Your task to perform on an android device: Check the news Image 0: 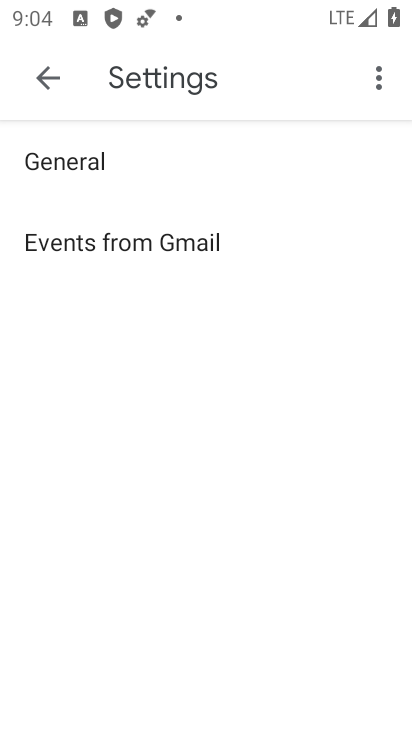
Step 0: press home button
Your task to perform on an android device: Check the news Image 1: 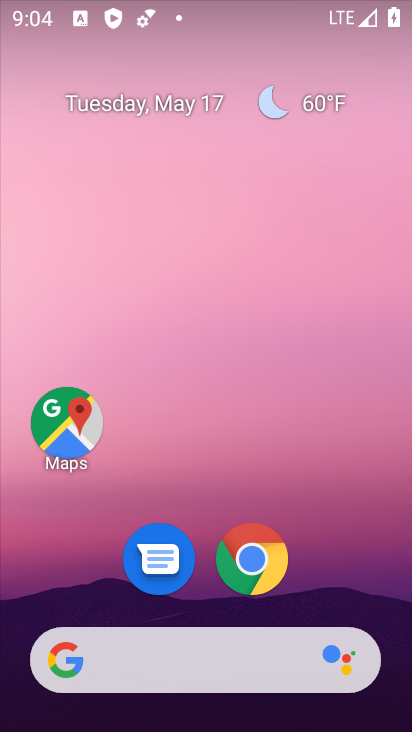
Step 1: drag from (202, 614) to (212, 236)
Your task to perform on an android device: Check the news Image 2: 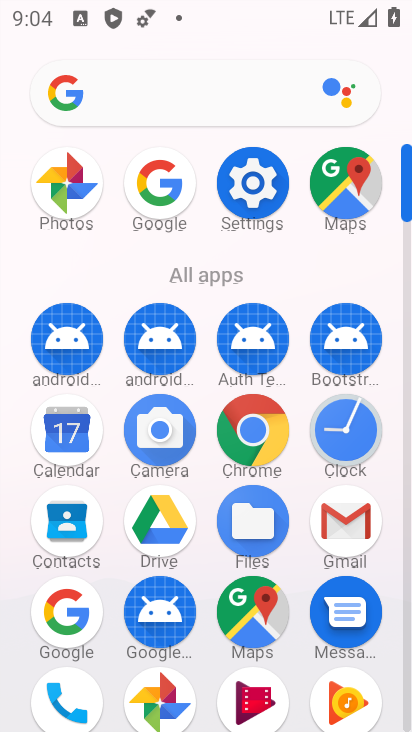
Step 2: click (169, 196)
Your task to perform on an android device: Check the news Image 3: 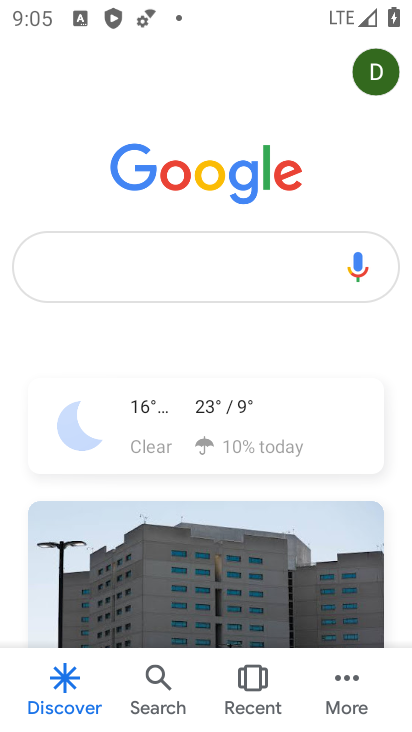
Step 3: click (191, 269)
Your task to perform on an android device: Check the news Image 4: 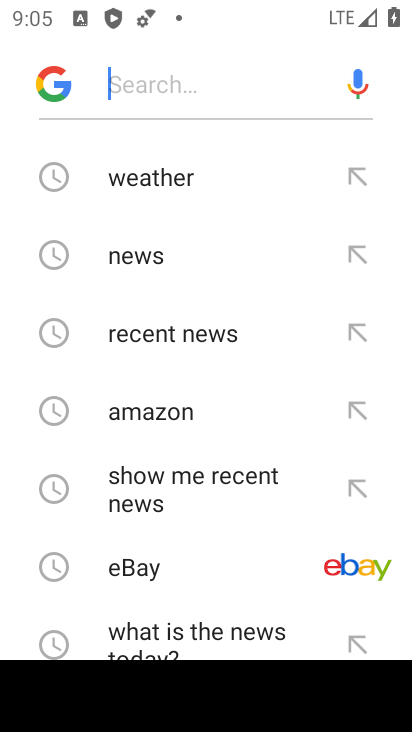
Step 4: click (171, 262)
Your task to perform on an android device: Check the news Image 5: 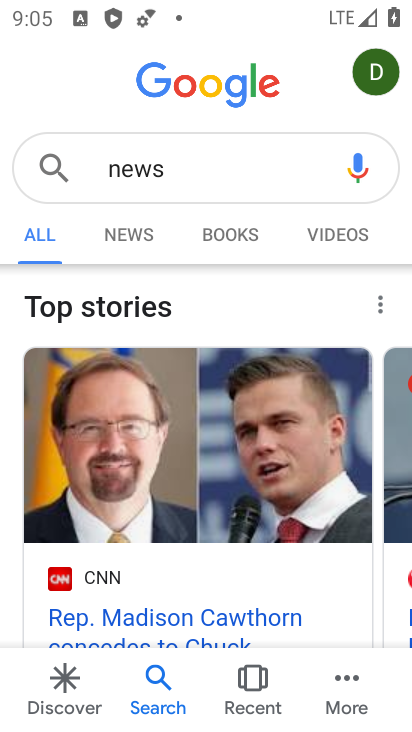
Step 5: click (149, 227)
Your task to perform on an android device: Check the news Image 6: 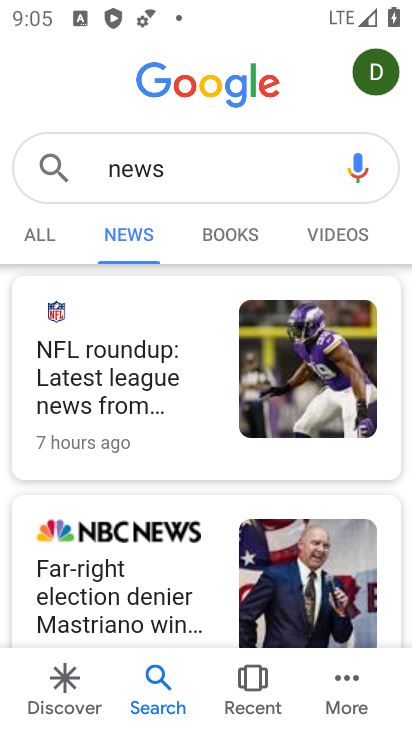
Step 6: task complete